Your task to perform on an android device: Open the phone app and click the voicemail tab. Image 0: 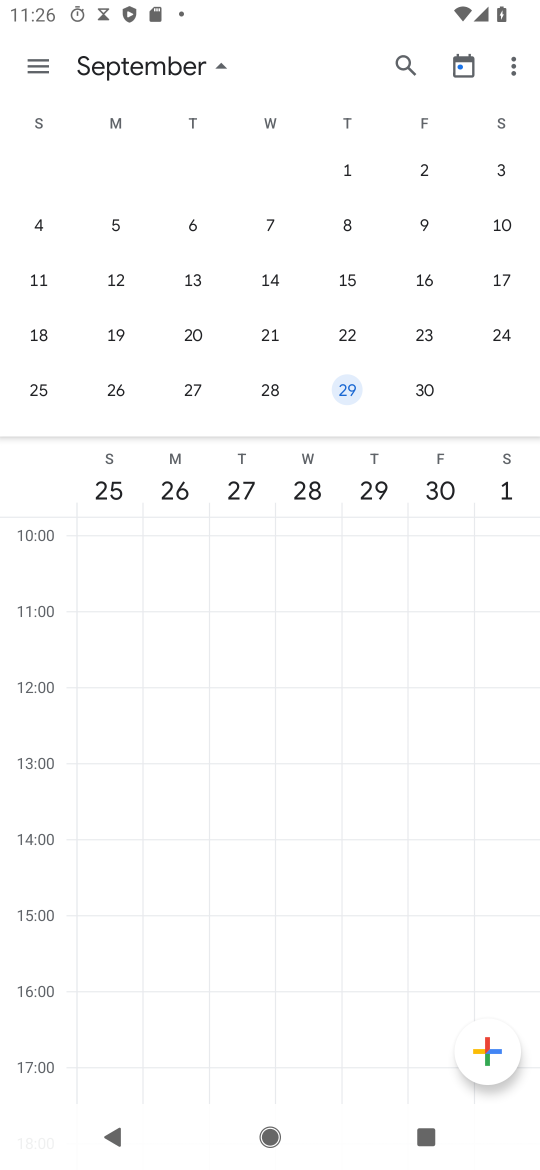
Step 0: press home button
Your task to perform on an android device: Open the phone app and click the voicemail tab. Image 1: 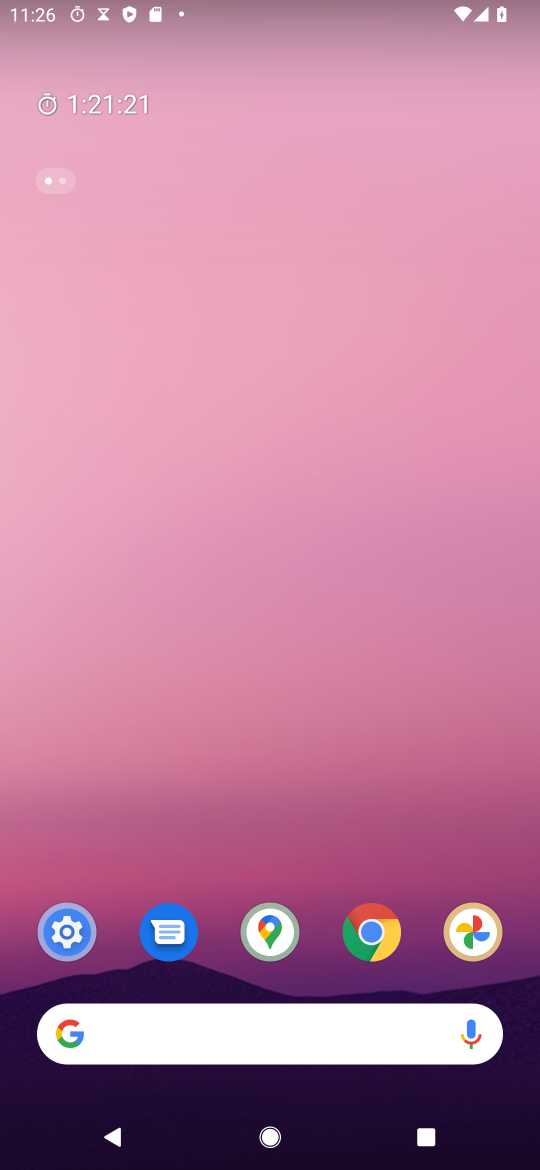
Step 1: drag from (323, 873) to (282, 119)
Your task to perform on an android device: Open the phone app and click the voicemail tab. Image 2: 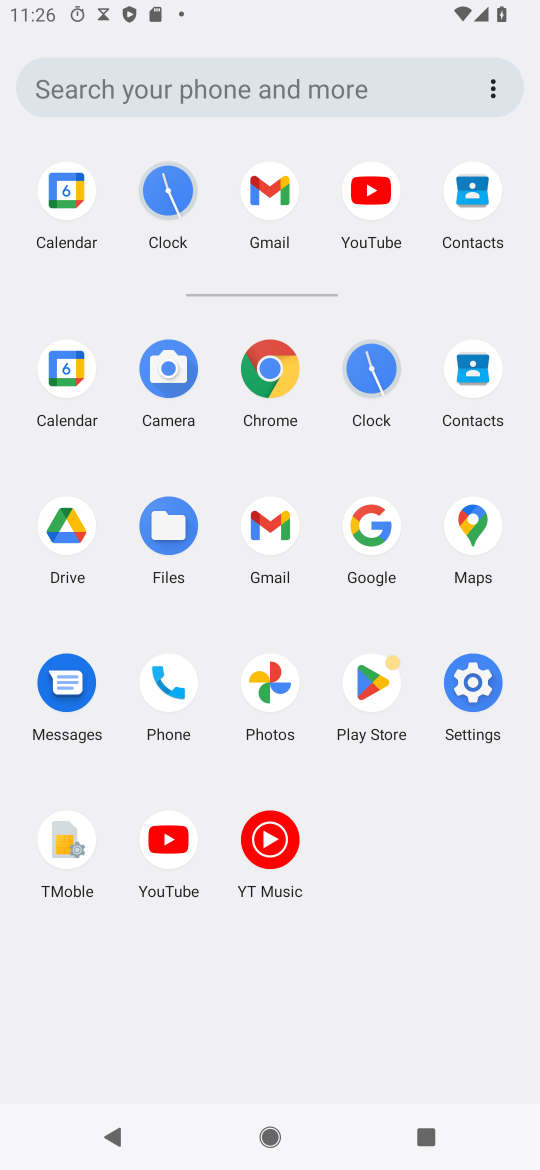
Step 2: click (175, 704)
Your task to perform on an android device: Open the phone app and click the voicemail tab. Image 3: 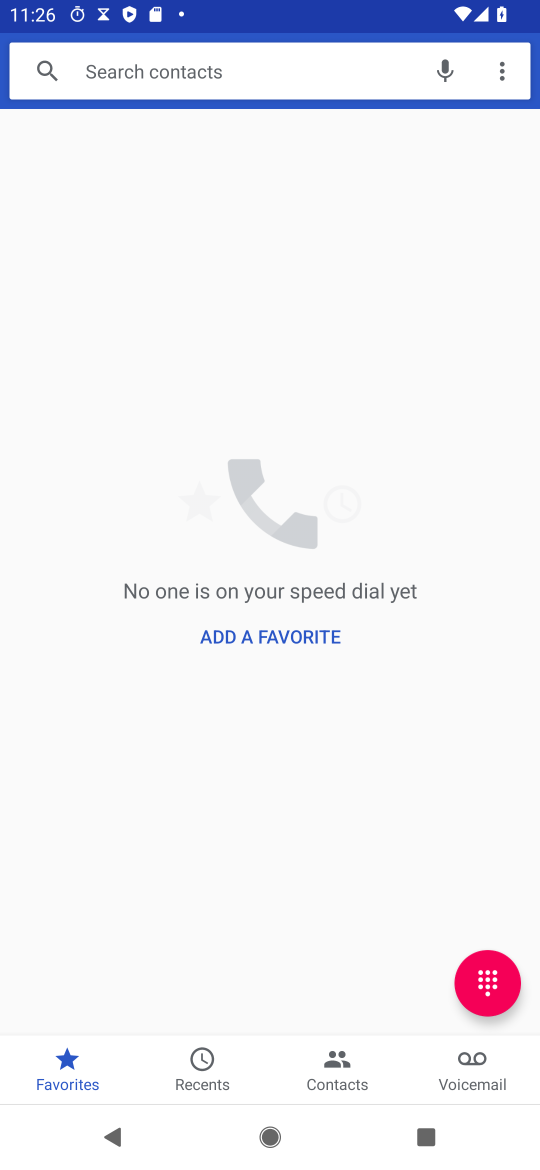
Step 3: click (463, 1057)
Your task to perform on an android device: Open the phone app and click the voicemail tab. Image 4: 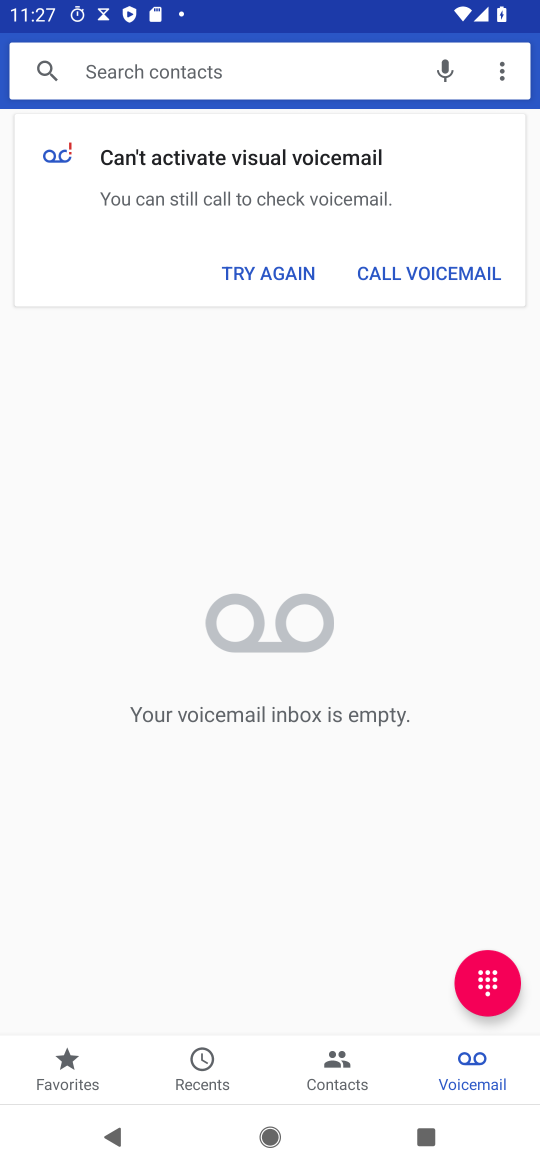
Step 4: task complete